Your task to perform on an android device: open a bookmark in the chrome app Image 0: 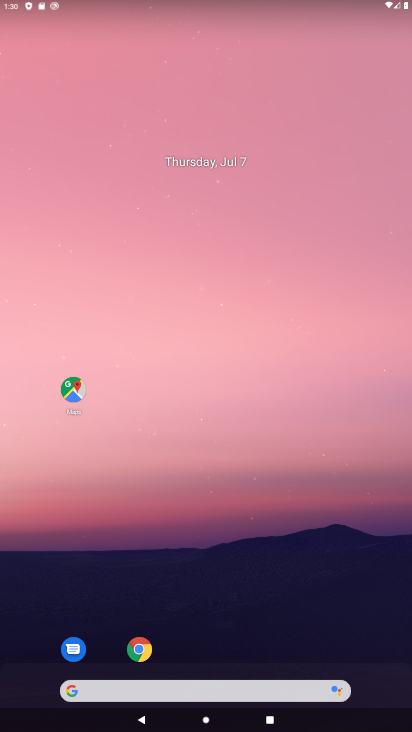
Step 0: drag from (193, 653) to (238, 55)
Your task to perform on an android device: open a bookmark in the chrome app Image 1: 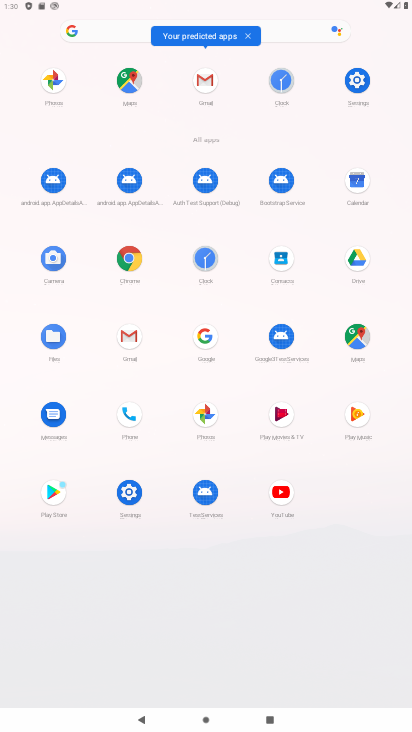
Step 1: click (132, 263)
Your task to perform on an android device: open a bookmark in the chrome app Image 2: 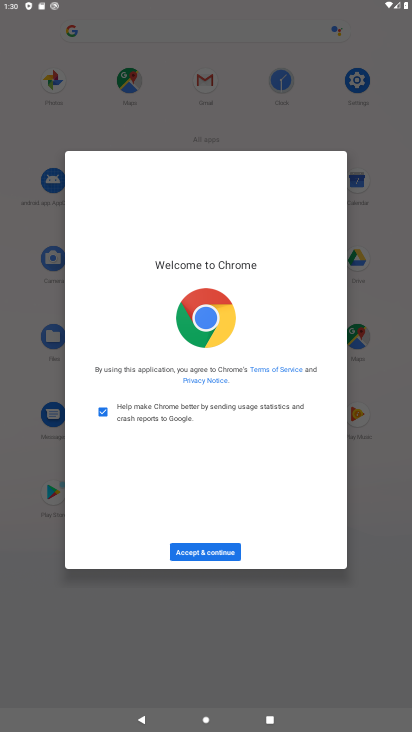
Step 2: click (190, 564)
Your task to perform on an android device: open a bookmark in the chrome app Image 3: 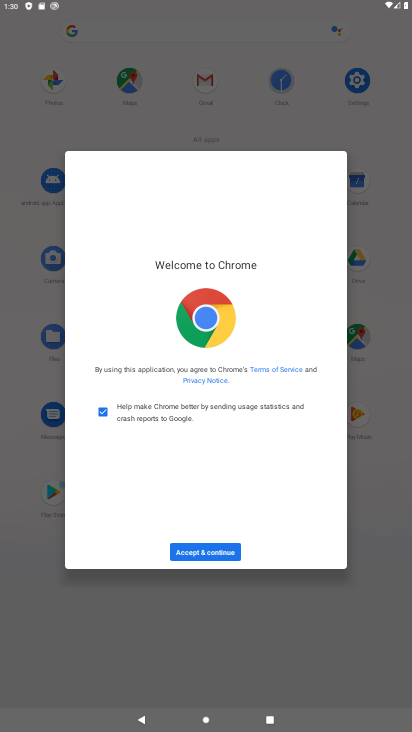
Step 3: click (210, 546)
Your task to perform on an android device: open a bookmark in the chrome app Image 4: 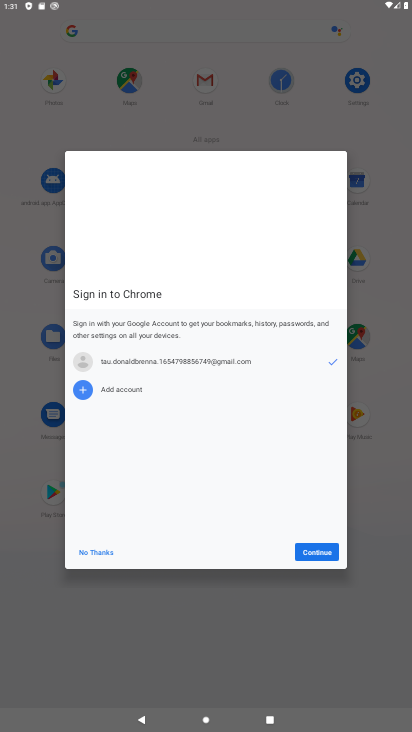
Step 4: click (321, 553)
Your task to perform on an android device: open a bookmark in the chrome app Image 5: 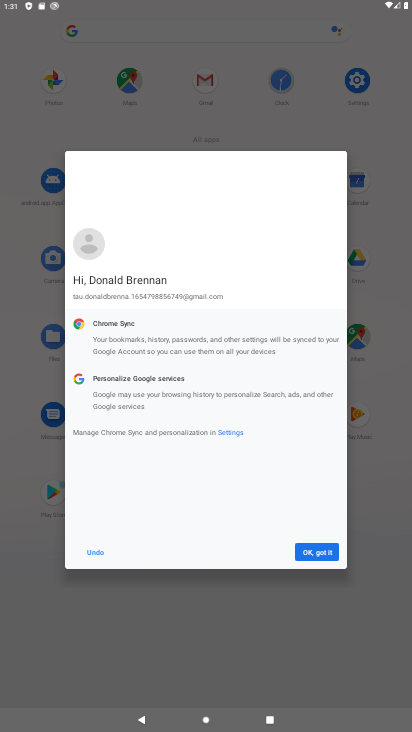
Step 5: click (320, 554)
Your task to perform on an android device: open a bookmark in the chrome app Image 6: 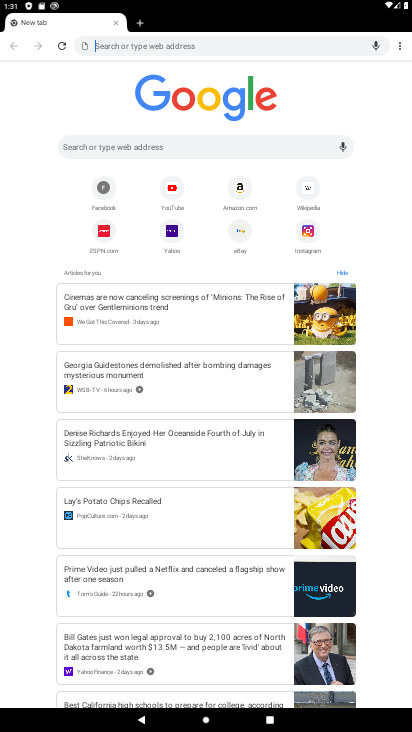
Step 6: click (397, 46)
Your task to perform on an android device: open a bookmark in the chrome app Image 7: 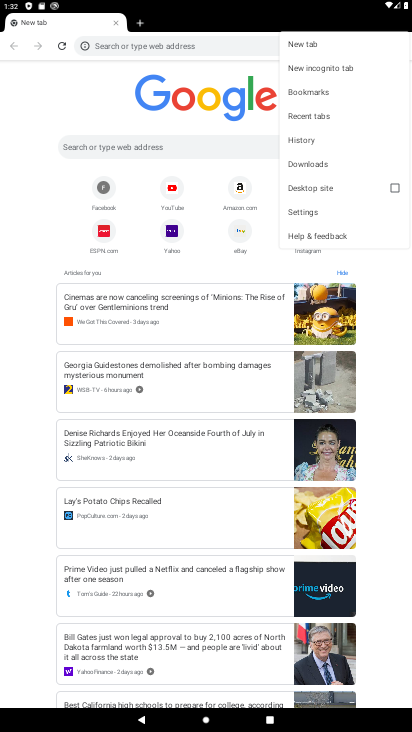
Step 7: click (308, 96)
Your task to perform on an android device: open a bookmark in the chrome app Image 8: 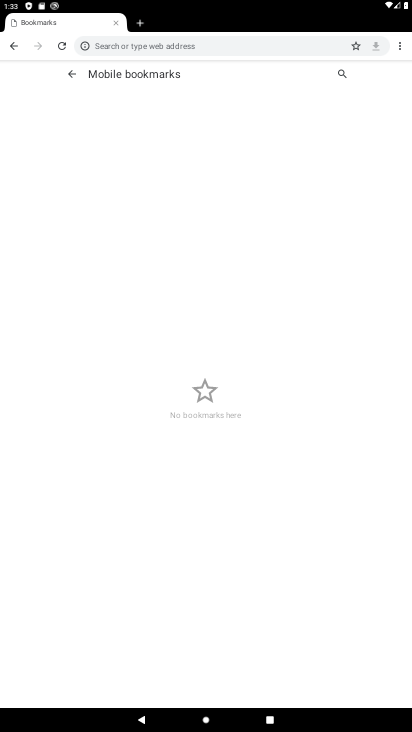
Step 8: task complete